Your task to perform on an android device: When is my next appointment? Image 0: 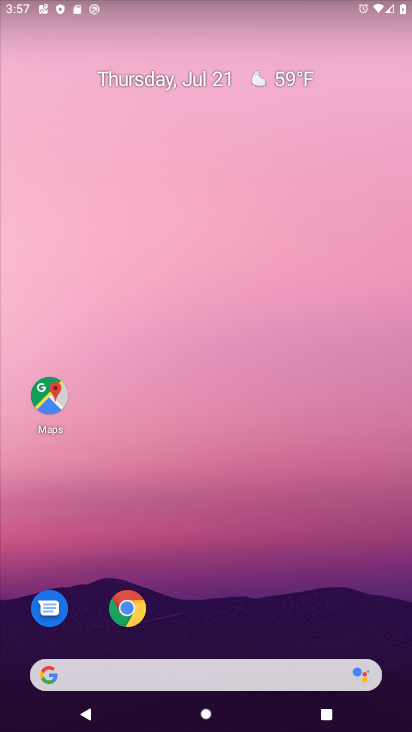
Step 0: drag from (307, 669) to (356, 2)
Your task to perform on an android device: When is my next appointment? Image 1: 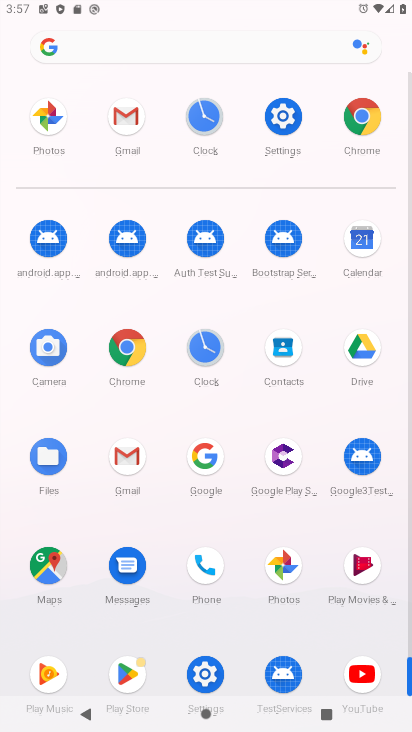
Step 1: click (375, 246)
Your task to perform on an android device: When is my next appointment? Image 2: 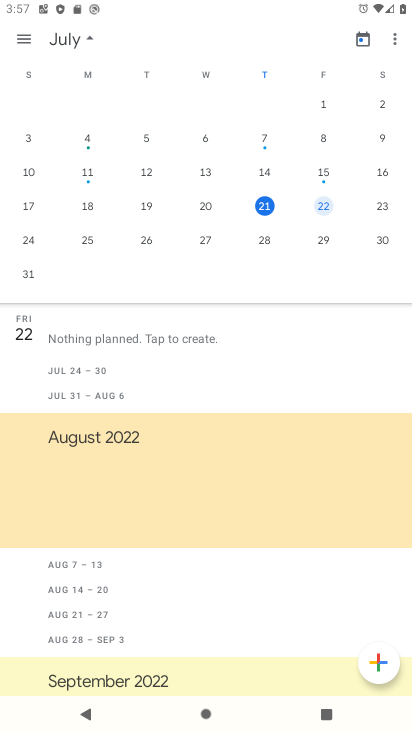
Step 2: click (324, 205)
Your task to perform on an android device: When is my next appointment? Image 3: 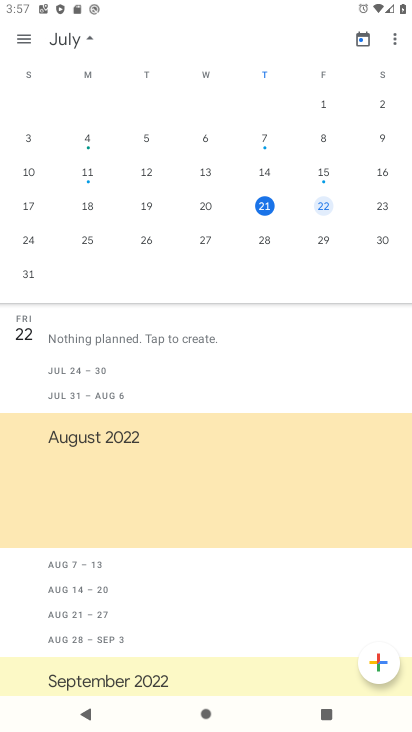
Step 3: task complete